Your task to perform on an android device: See recent photos Image 0: 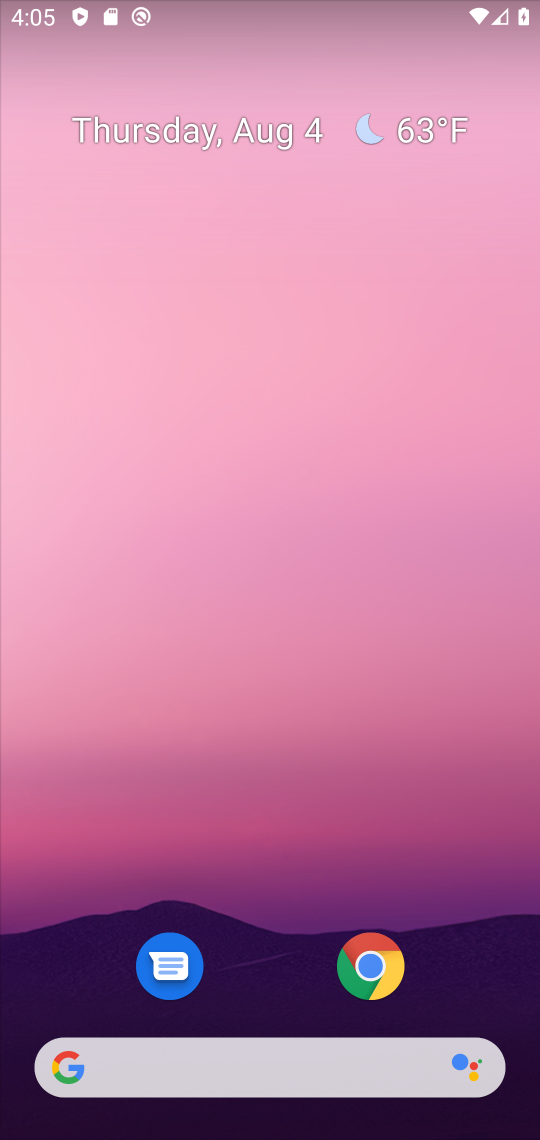
Step 0: drag from (354, 885) to (426, 20)
Your task to perform on an android device: See recent photos Image 1: 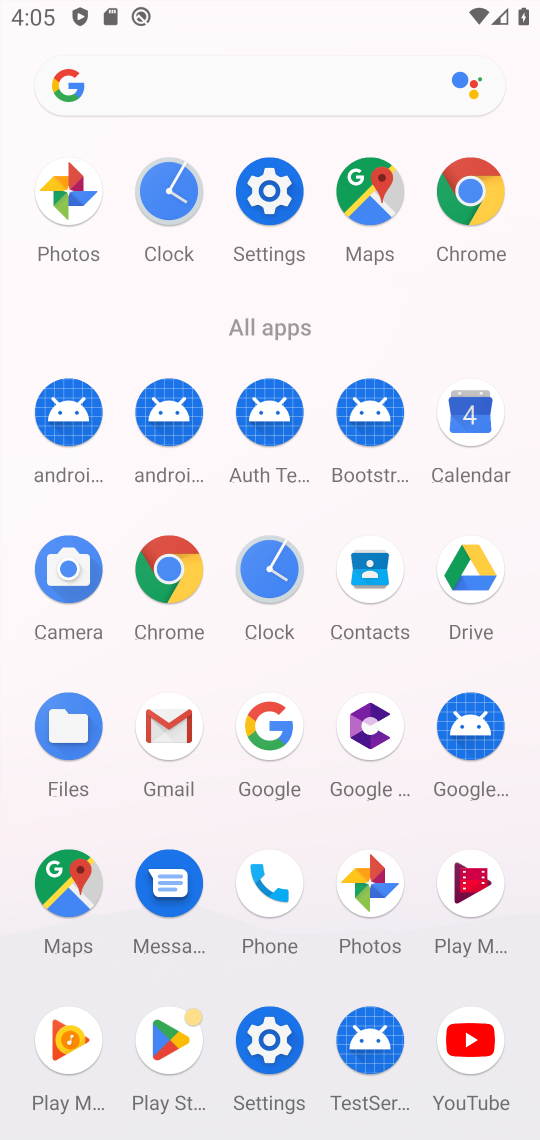
Step 1: click (464, 214)
Your task to perform on an android device: See recent photos Image 2: 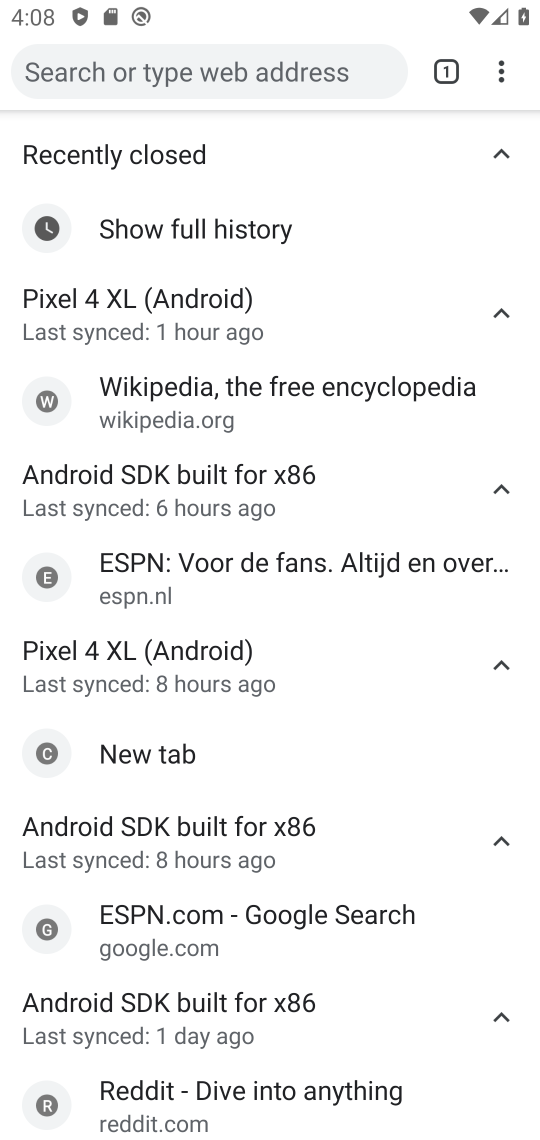
Step 2: press home button
Your task to perform on an android device: See recent photos Image 3: 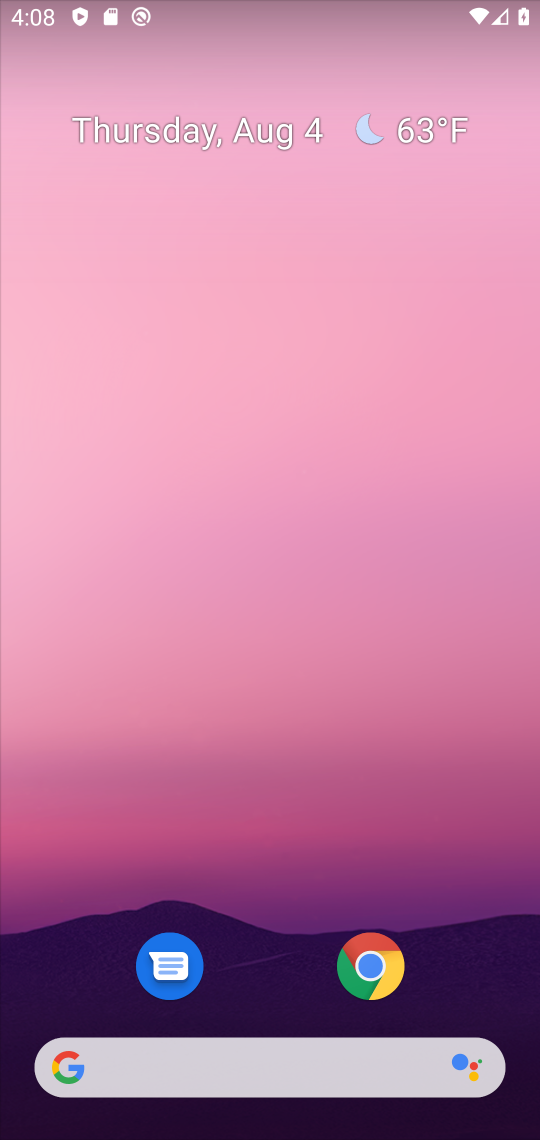
Step 3: drag from (216, 876) to (224, 188)
Your task to perform on an android device: See recent photos Image 4: 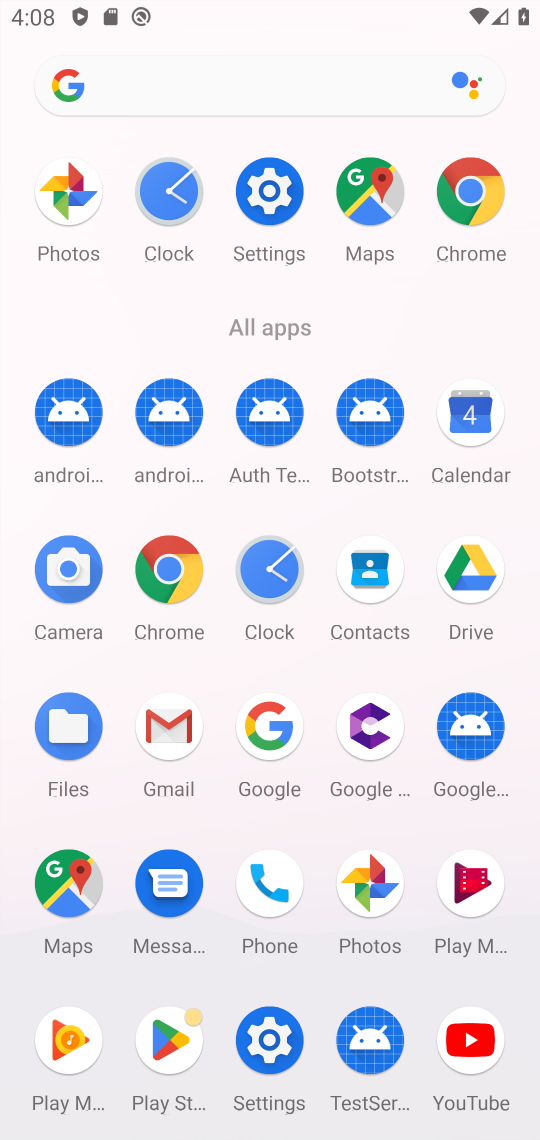
Step 4: click (385, 884)
Your task to perform on an android device: See recent photos Image 5: 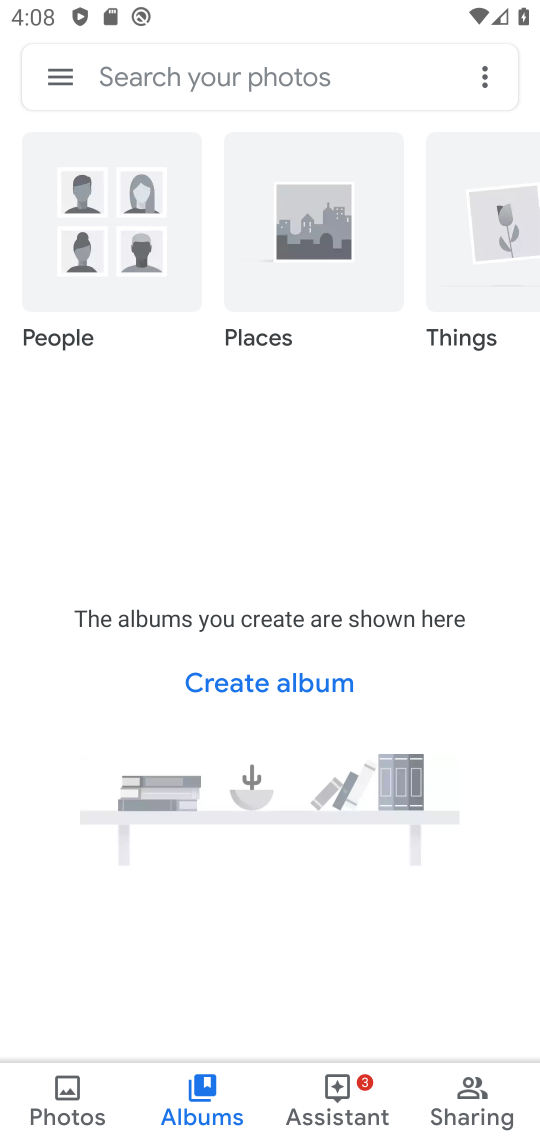
Step 5: click (68, 1106)
Your task to perform on an android device: See recent photos Image 6: 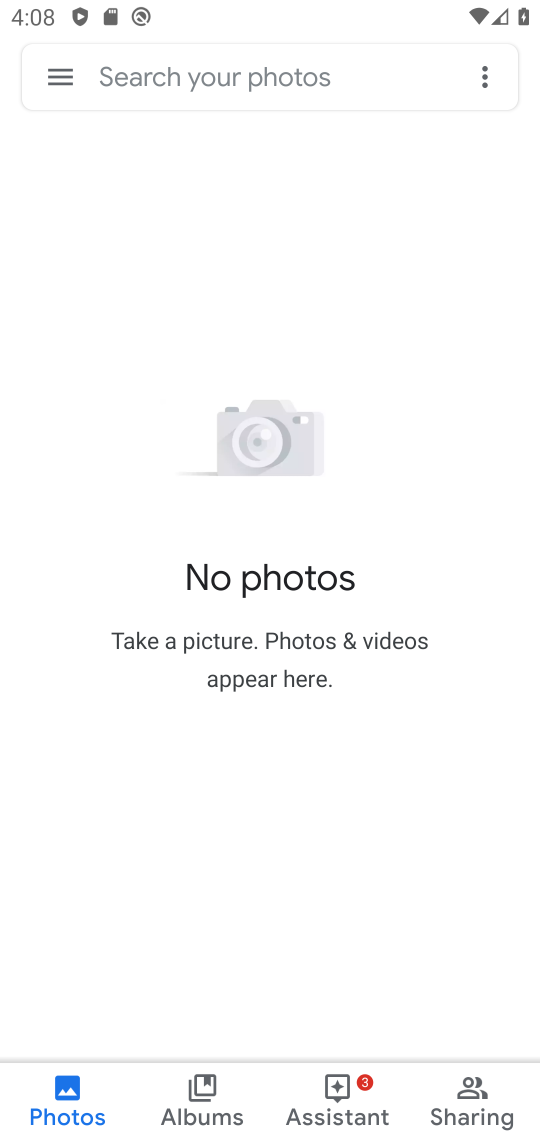
Step 6: task complete